Your task to perform on an android device: Go to eBay Image 0: 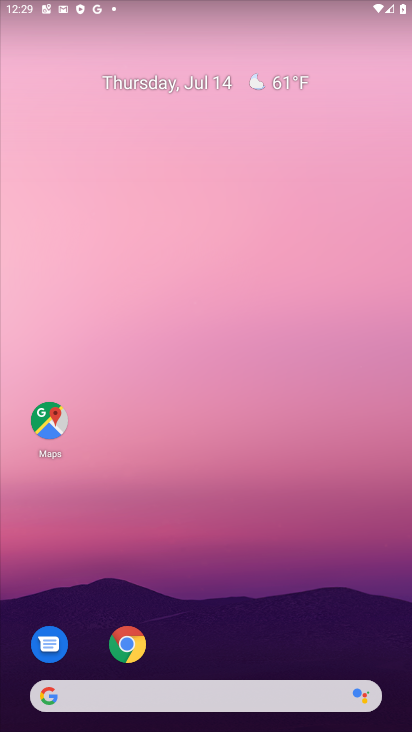
Step 0: click (122, 641)
Your task to perform on an android device: Go to eBay Image 1: 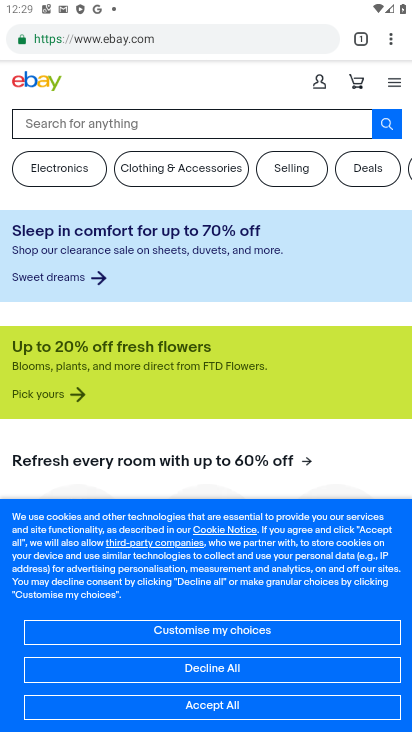
Step 1: task complete